Your task to perform on an android device: Search for shimano brake pads on Walmart Image 0: 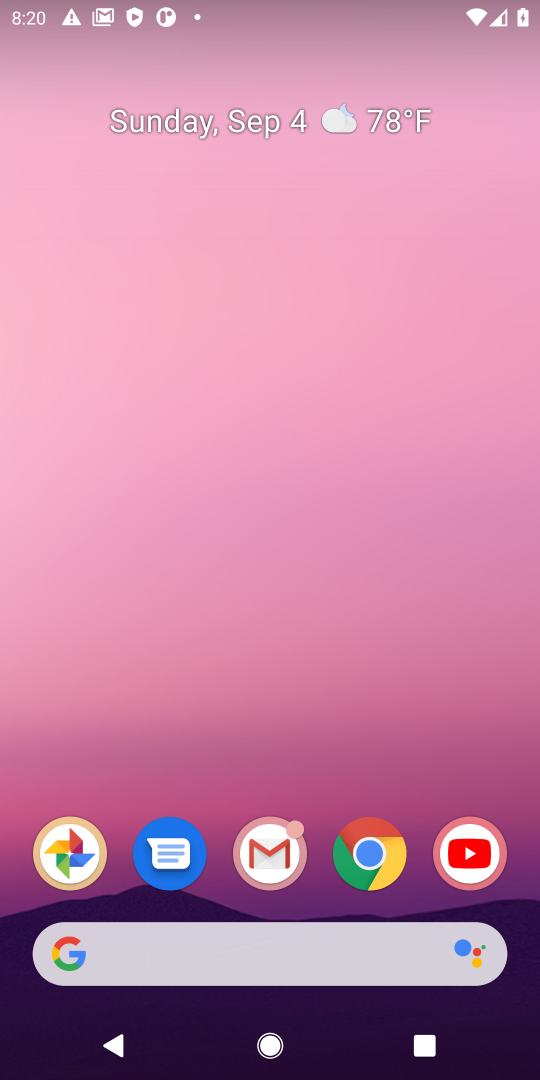
Step 0: press home button
Your task to perform on an android device: Search for shimano brake pads on Walmart Image 1: 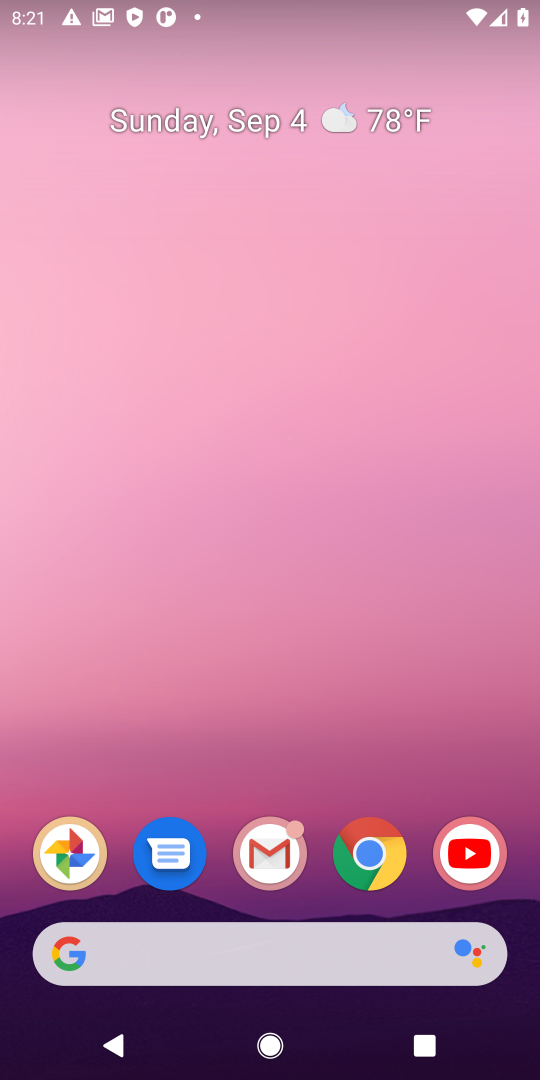
Step 1: drag from (317, 803) to (399, 25)
Your task to perform on an android device: Search for shimano brake pads on Walmart Image 2: 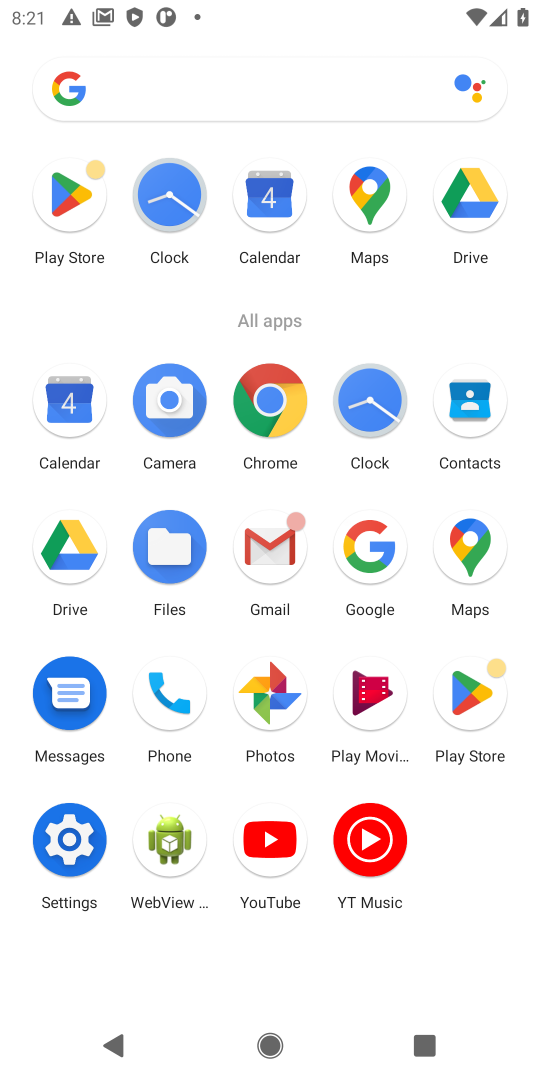
Step 2: click (266, 396)
Your task to perform on an android device: Search for shimano brake pads on Walmart Image 3: 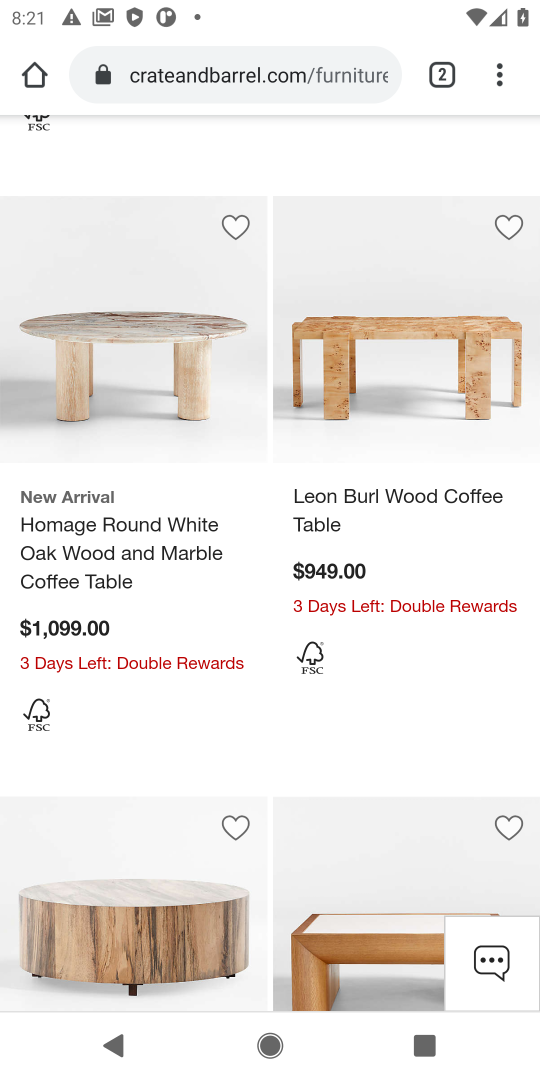
Step 3: click (447, 74)
Your task to perform on an android device: Search for shimano brake pads on Walmart Image 4: 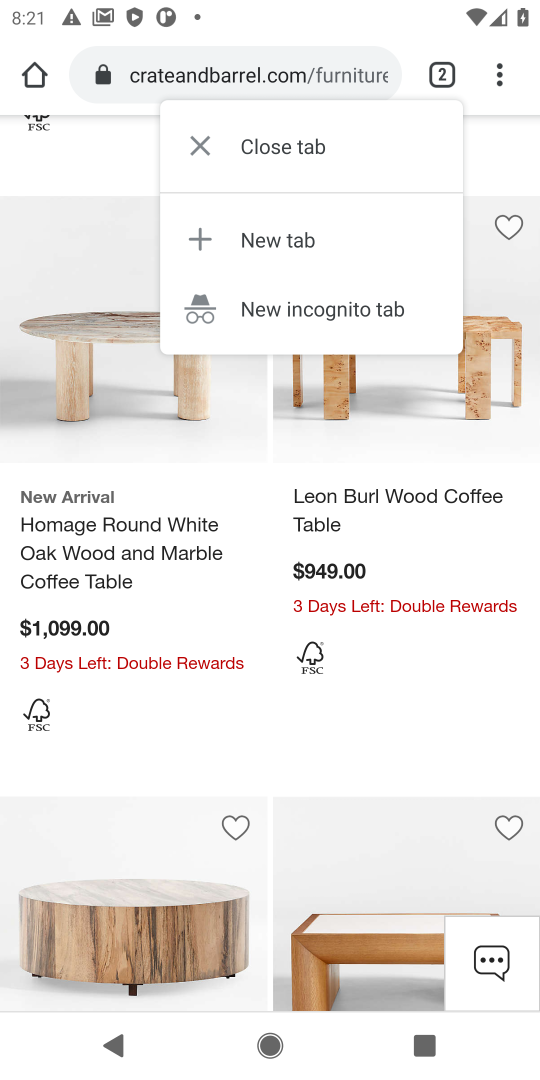
Step 4: click (206, 141)
Your task to perform on an android device: Search for shimano brake pads on Walmart Image 5: 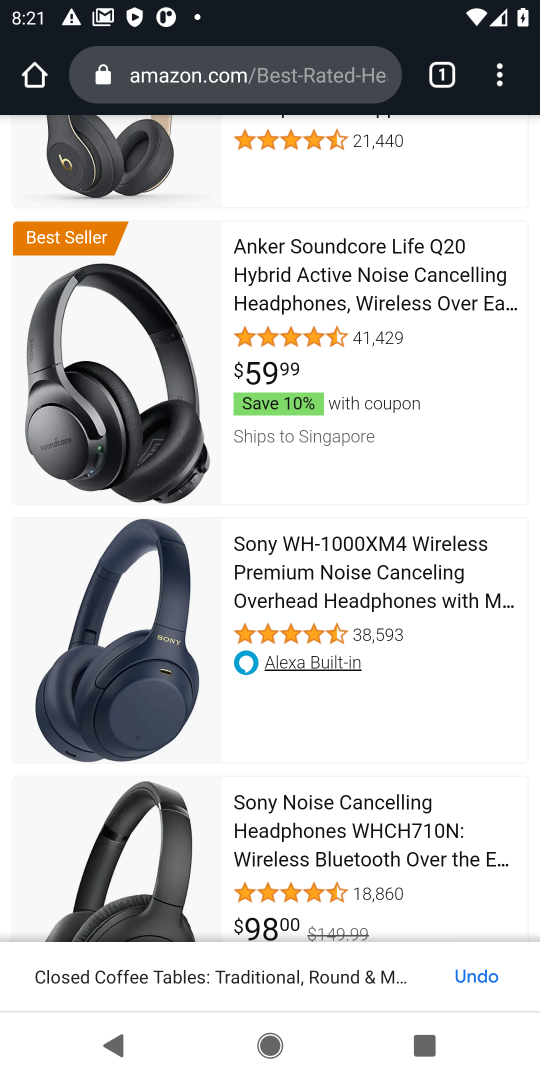
Step 5: click (438, 72)
Your task to perform on an android device: Search for shimano brake pads on Walmart Image 6: 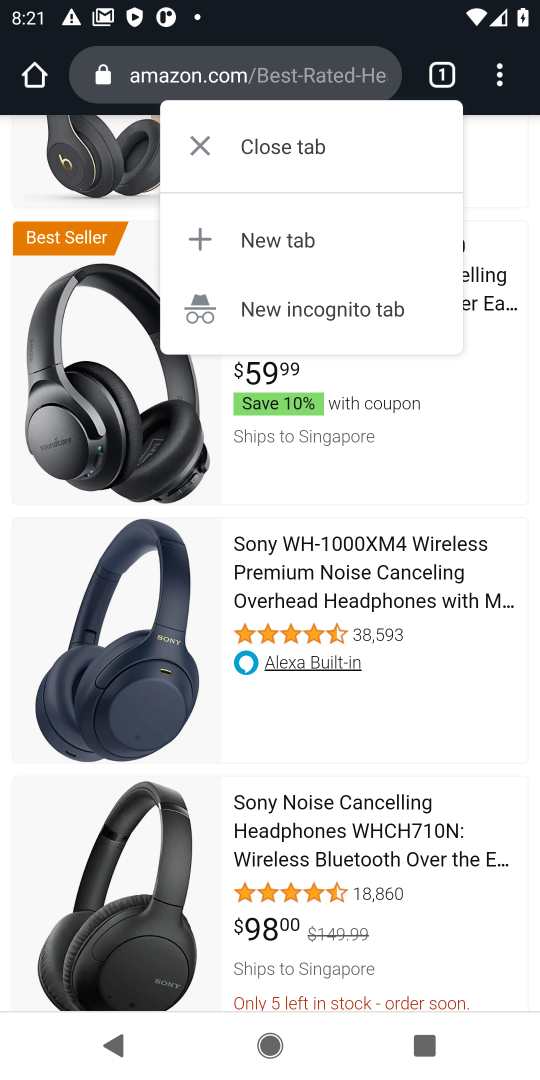
Step 6: click (198, 141)
Your task to perform on an android device: Search for shimano brake pads on Walmart Image 7: 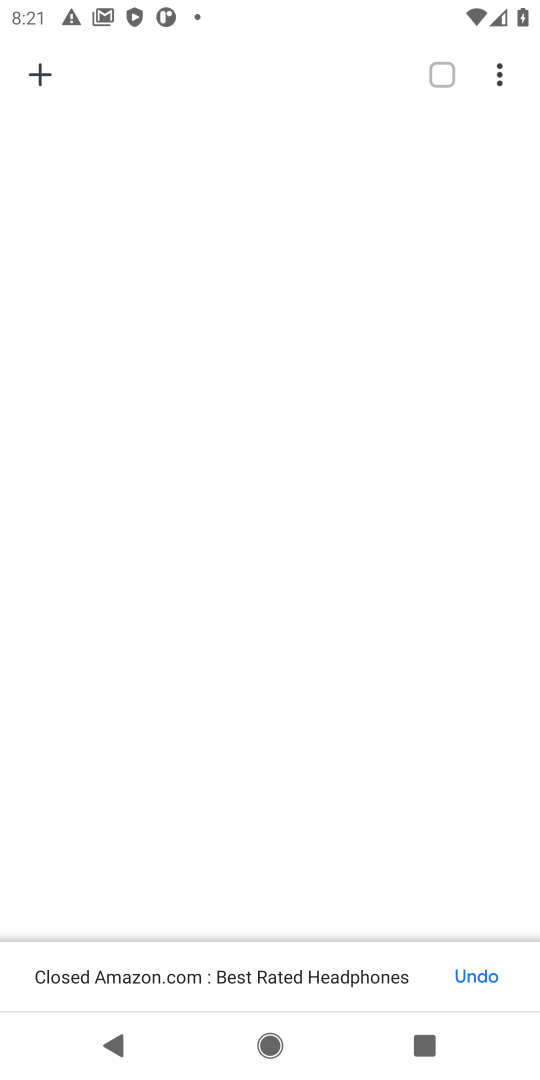
Step 7: click (45, 71)
Your task to perform on an android device: Search for shimano brake pads on Walmart Image 8: 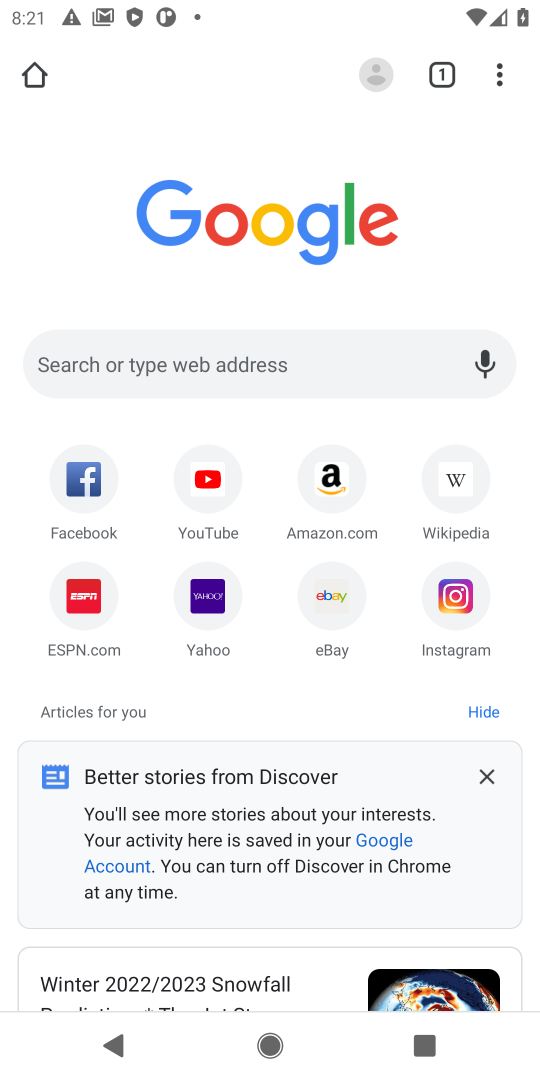
Step 8: click (199, 358)
Your task to perform on an android device: Search for shimano brake pads on Walmart Image 9: 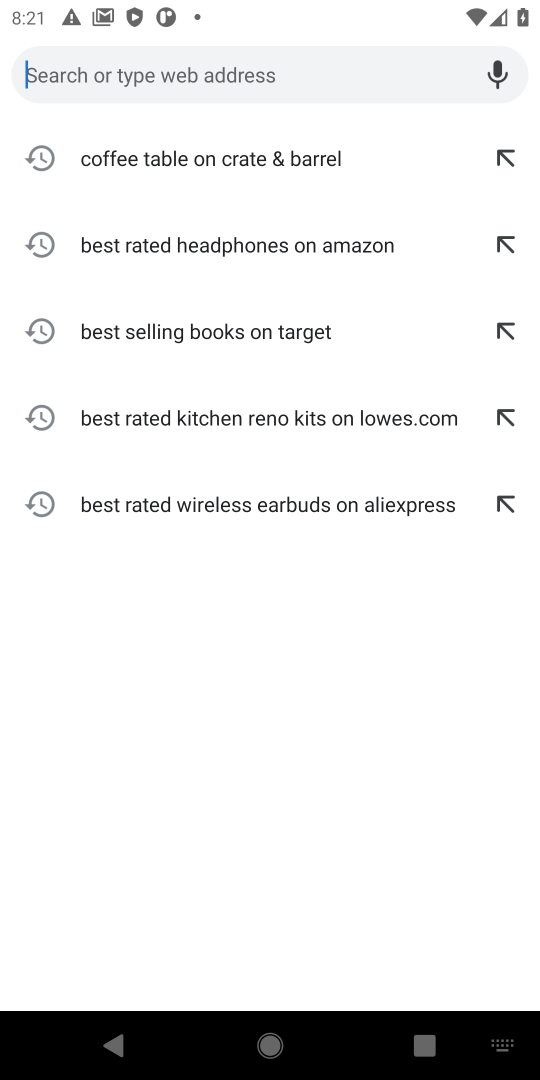
Step 9: type "shimano brake pads on Walmart"
Your task to perform on an android device: Search for shimano brake pads on Walmart Image 10: 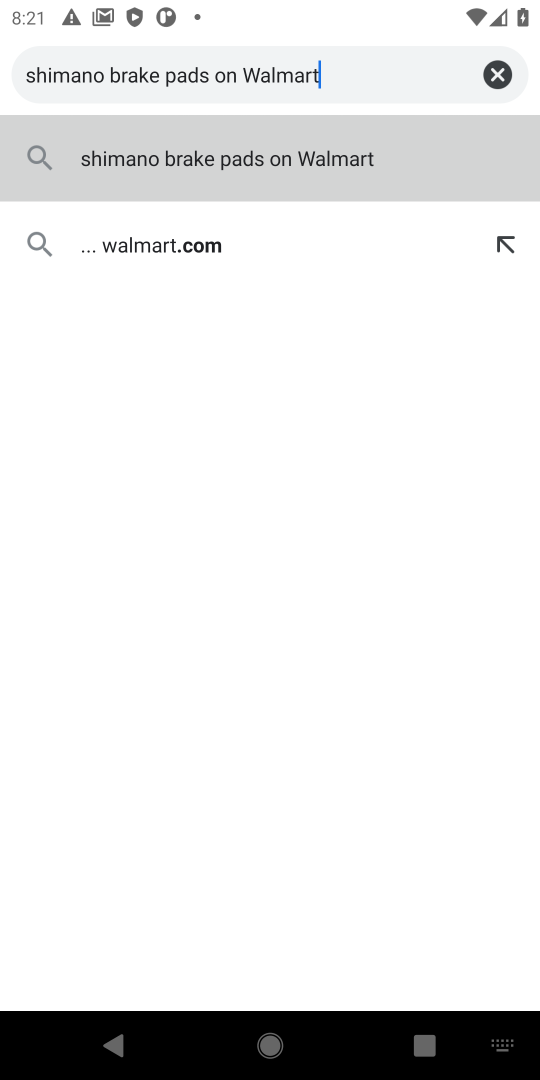
Step 10: click (219, 172)
Your task to perform on an android device: Search for shimano brake pads on Walmart Image 11: 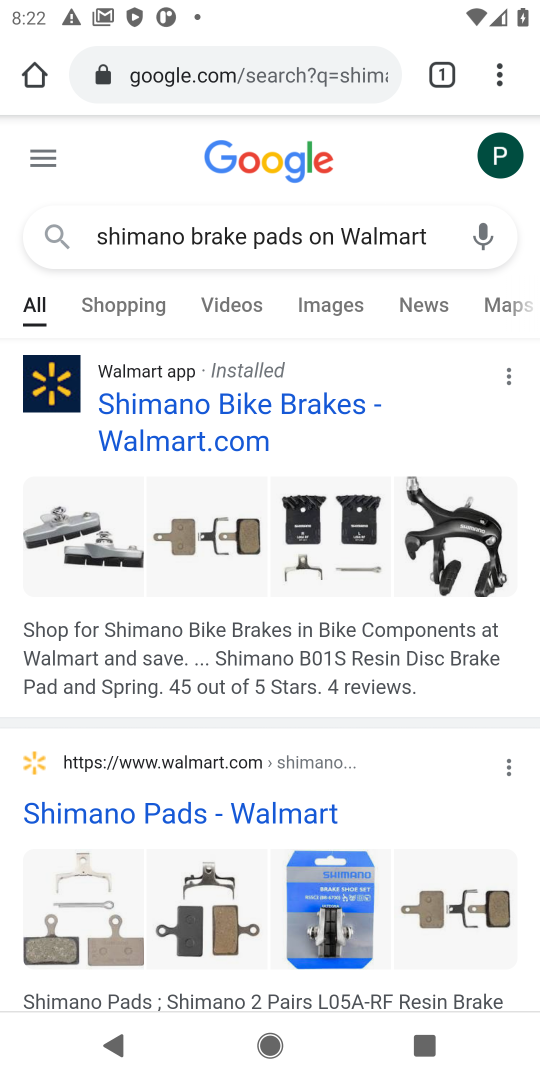
Step 11: drag from (276, 776) to (273, 469)
Your task to perform on an android device: Search for shimano brake pads on Walmart Image 12: 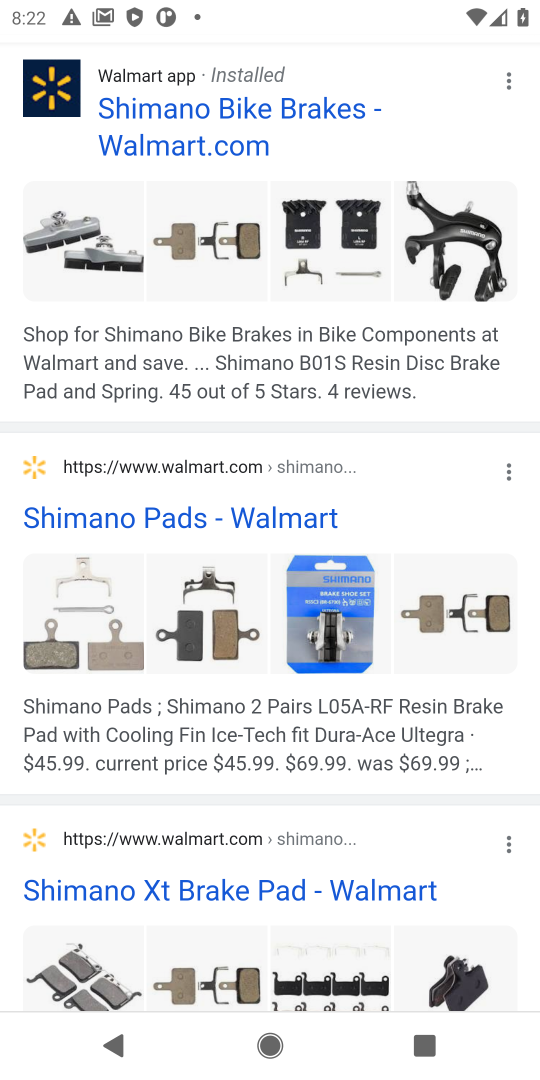
Step 12: click (189, 511)
Your task to perform on an android device: Search for shimano brake pads on Walmart Image 13: 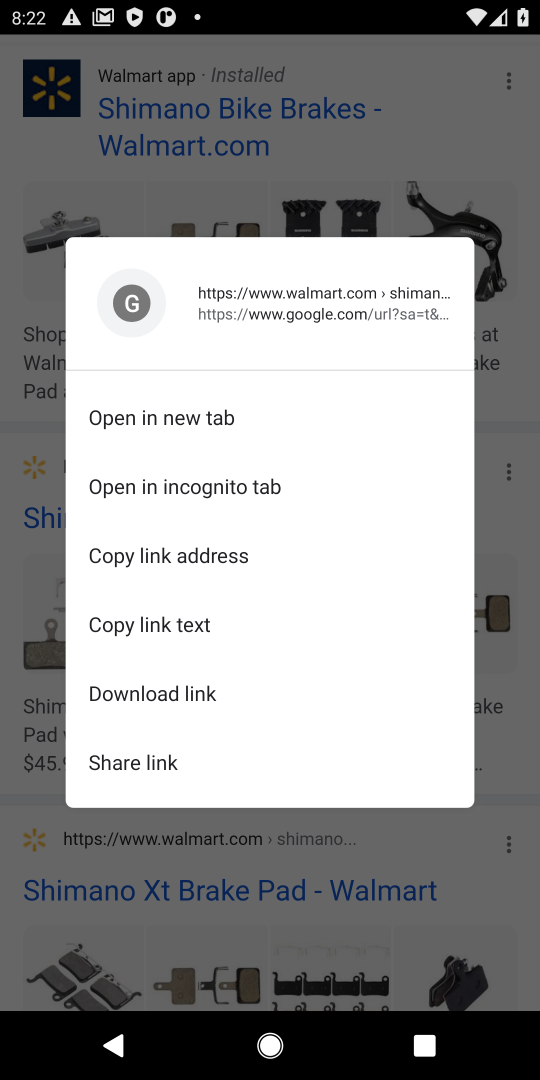
Step 13: click (19, 526)
Your task to perform on an android device: Search for shimano brake pads on Walmart Image 14: 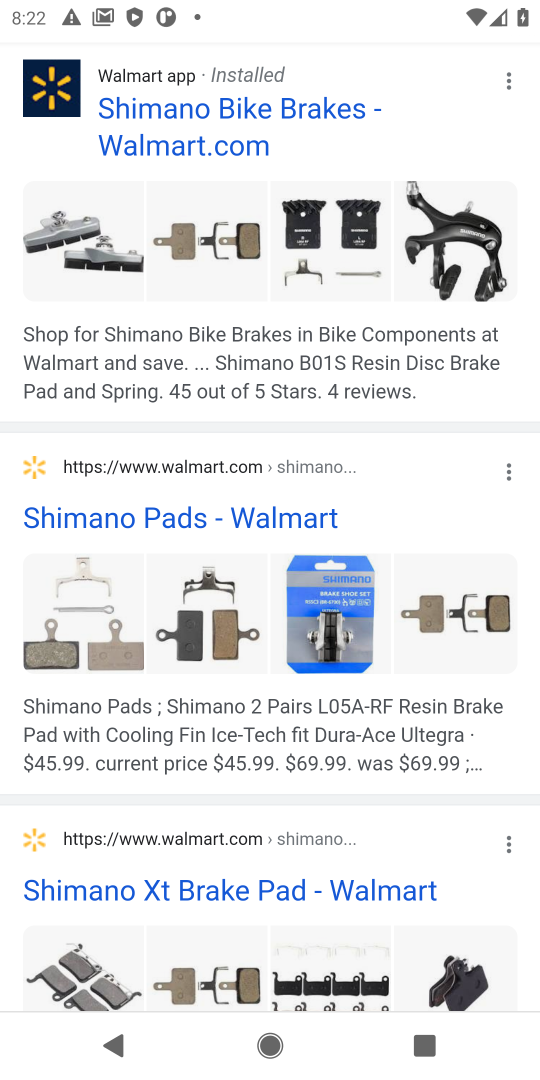
Step 14: click (85, 519)
Your task to perform on an android device: Search for shimano brake pads on Walmart Image 15: 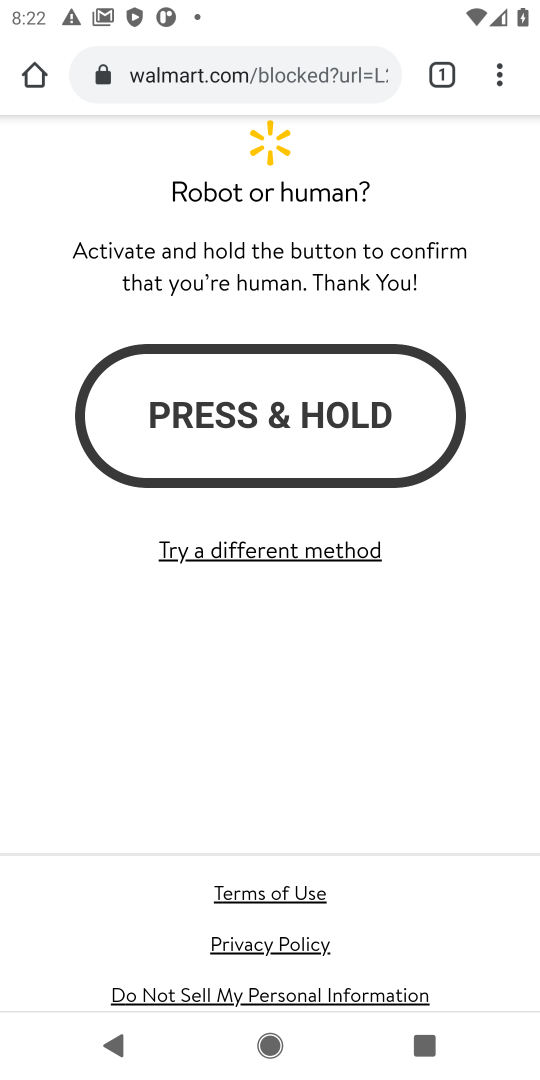
Step 15: drag from (288, 734) to (310, 348)
Your task to perform on an android device: Search for shimano brake pads on Walmart Image 16: 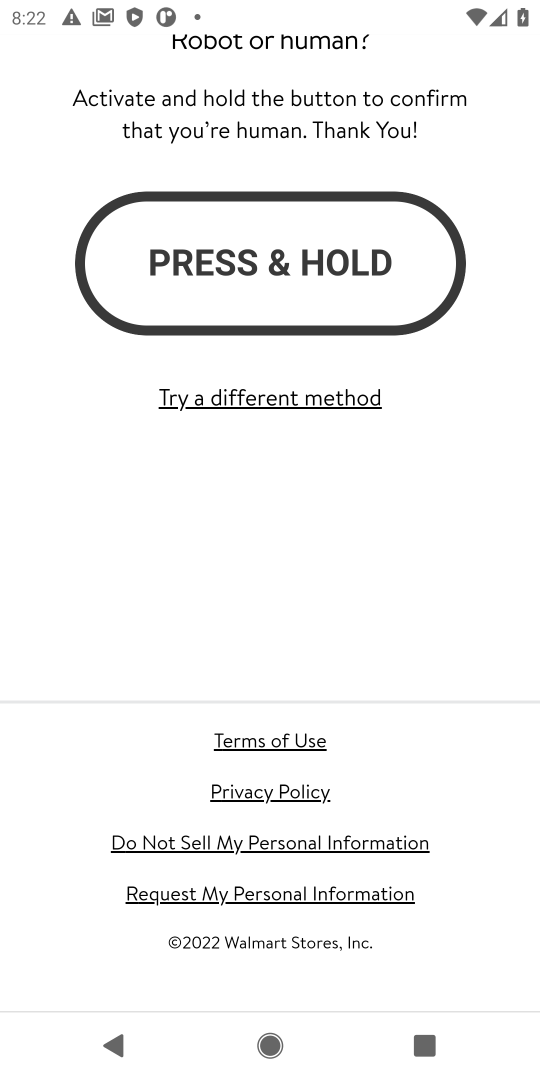
Step 16: drag from (406, 750) to (377, 450)
Your task to perform on an android device: Search for shimano brake pads on Walmart Image 17: 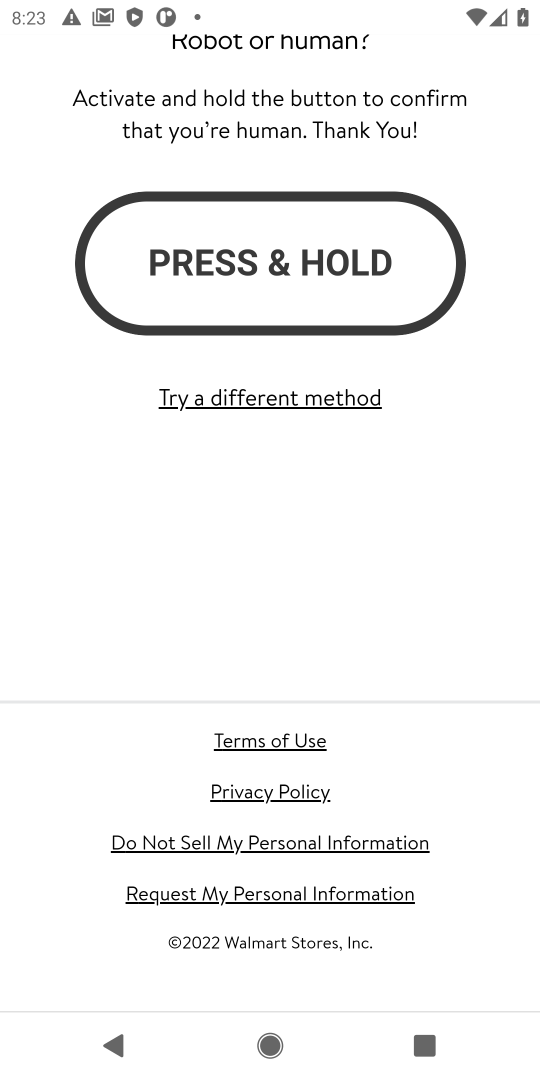
Step 17: click (255, 267)
Your task to perform on an android device: Search for shimano brake pads on Walmart Image 18: 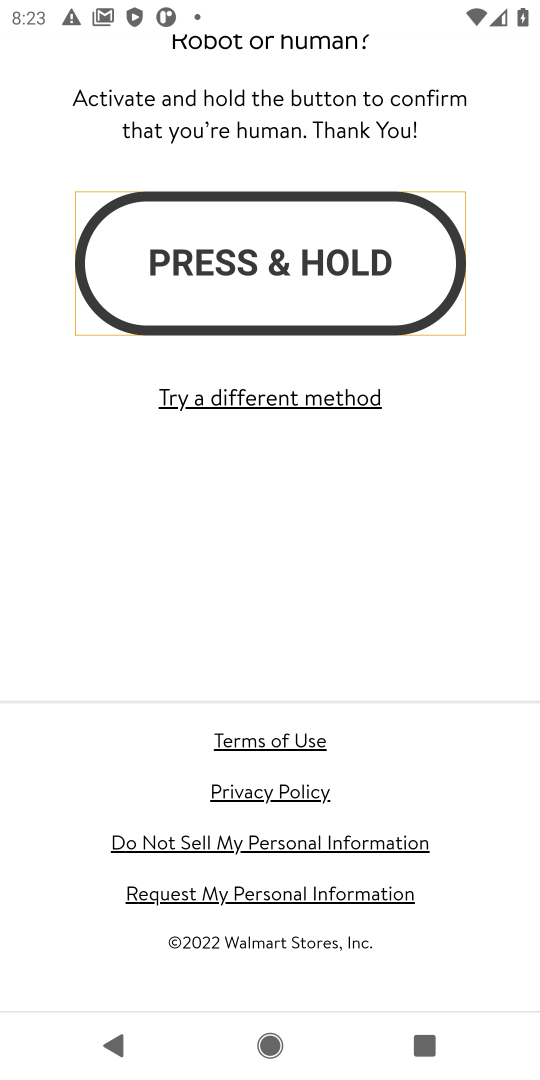
Step 18: click (286, 260)
Your task to perform on an android device: Search for shimano brake pads on Walmart Image 19: 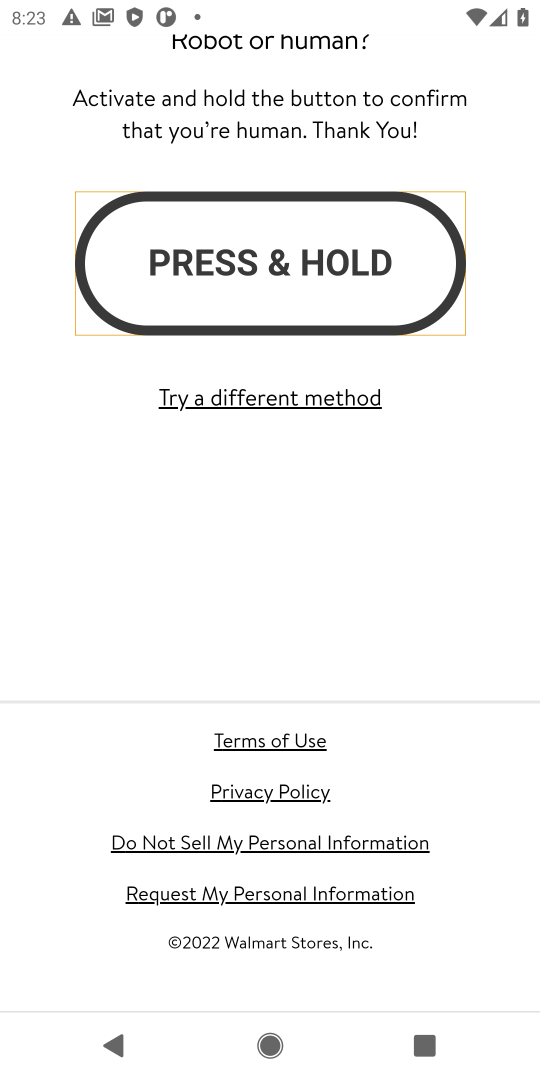
Step 19: click (257, 395)
Your task to perform on an android device: Search for shimano brake pads on Walmart Image 20: 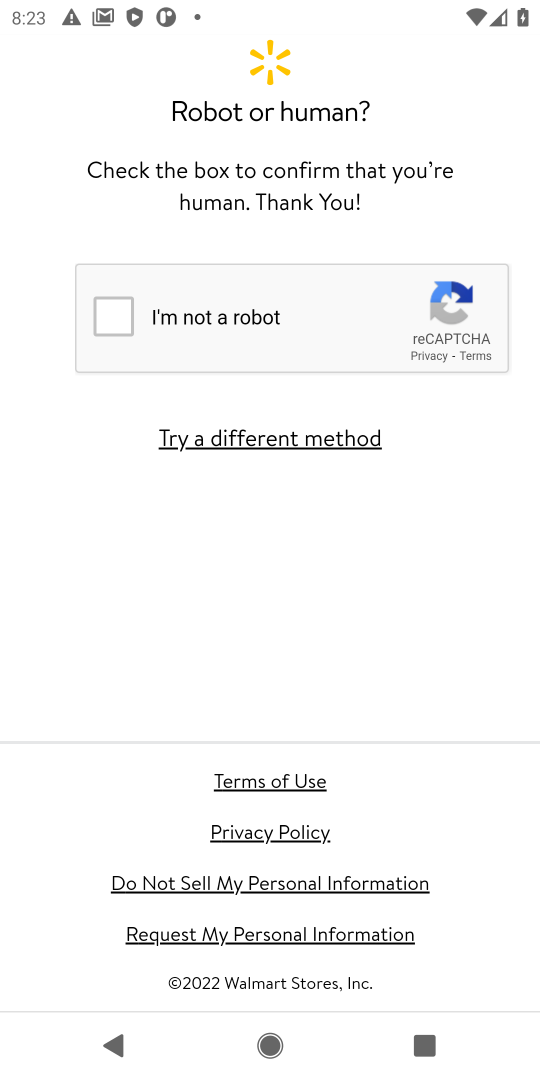
Step 20: click (107, 312)
Your task to perform on an android device: Search for shimano brake pads on Walmart Image 21: 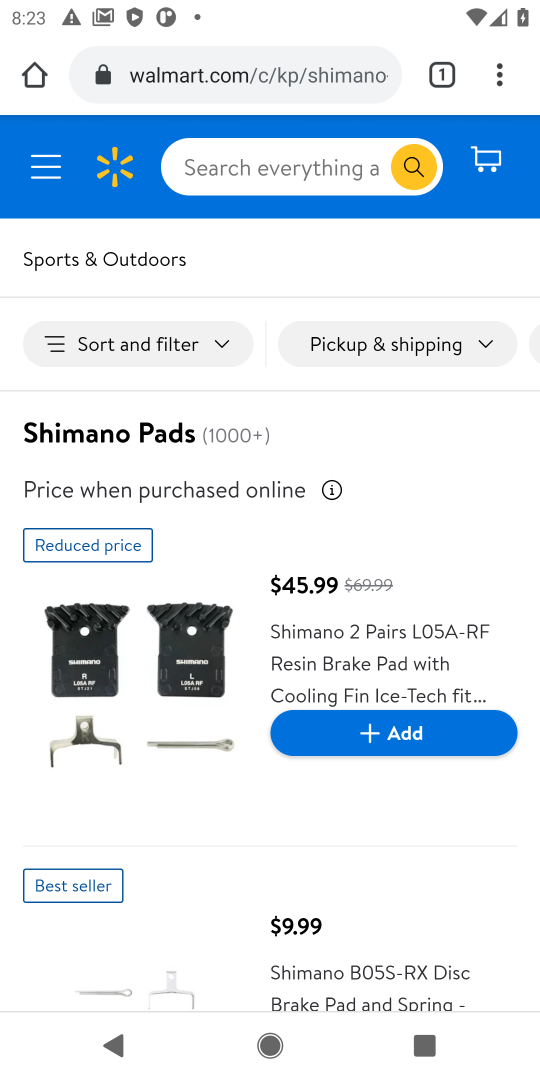
Step 21: task complete